Your task to perform on an android device: all mails in gmail Image 0: 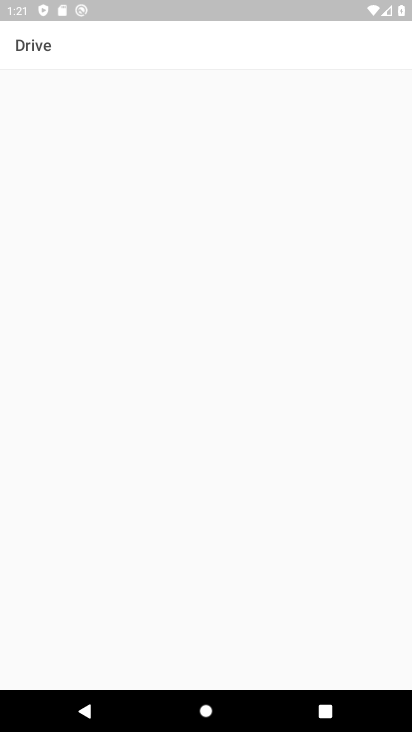
Step 0: press home button
Your task to perform on an android device: all mails in gmail Image 1: 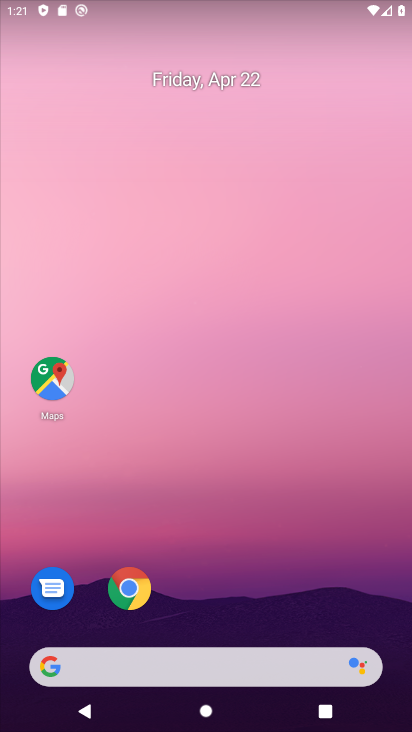
Step 1: drag from (212, 635) to (247, 231)
Your task to perform on an android device: all mails in gmail Image 2: 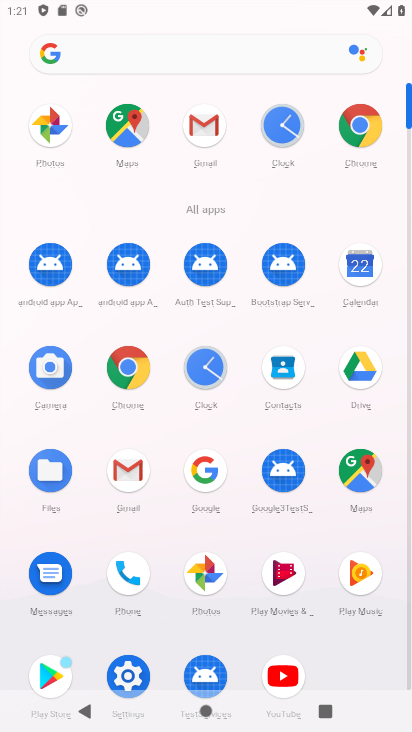
Step 2: click (133, 478)
Your task to perform on an android device: all mails in gmail Image 3: 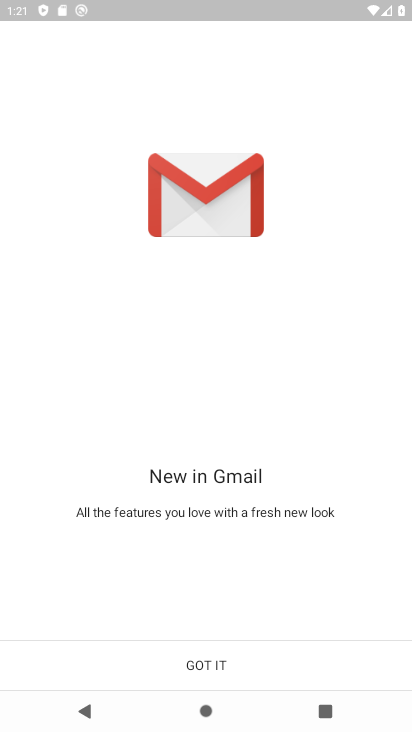
Step 3: click (228, 645)
Your task to perform on an android device: all mails in gmail Image 4: 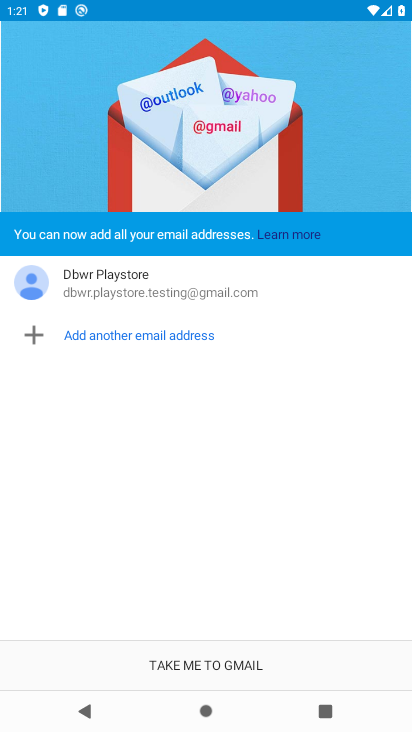
Step 4: click (229, 670)
Your task to perform on an android device: all mails in gmail Image 5: 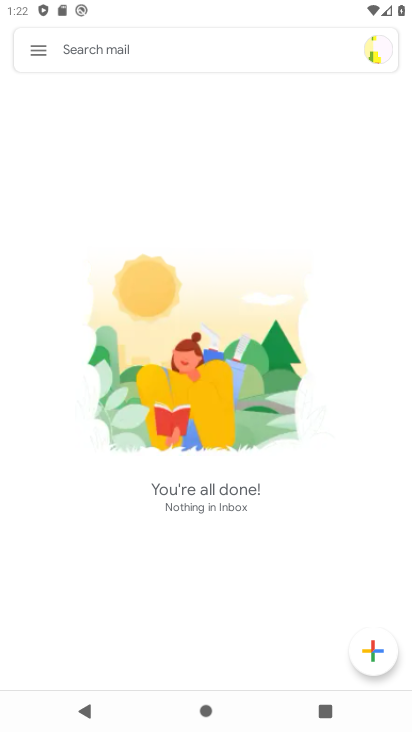
Step 5: click (40, 57)
Your task to perform on an android device: all mails in gmail Image 6: 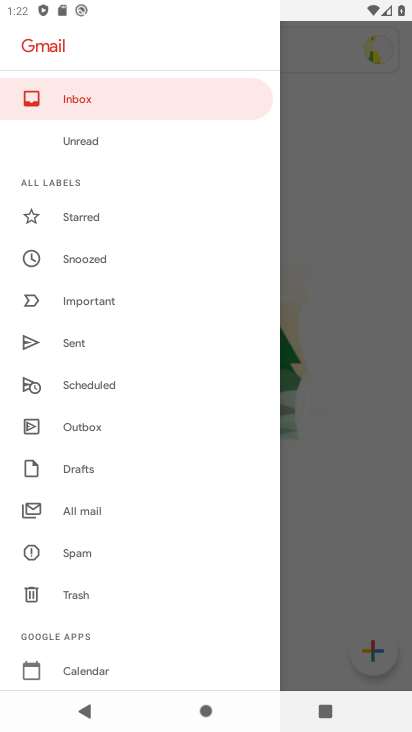
Step 6: click (109, 516)
Your task to perform on an android device: all mails in gmail Image 7: 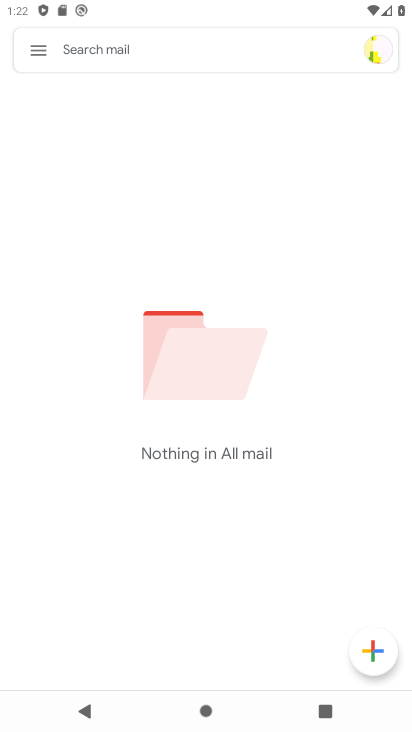
Step 7: task complete